Your task to perform on an android device: What's the weather going to be tomorrow? Image 0: 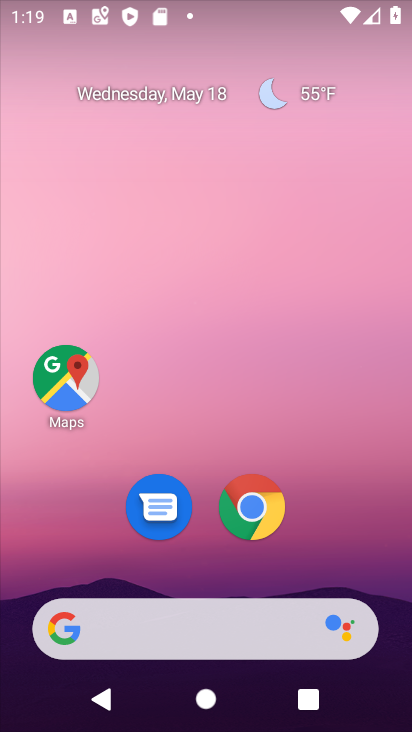
Step 0: click (321, 88)
Your task to perform on an android device: What's the weather going to be tomorrow? Image 1: 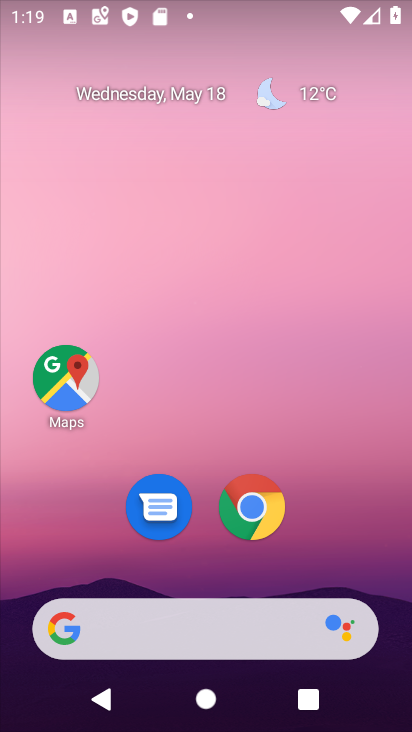
Step 1: click (300, 92)
Your task to perform on an android device: What's the weather going to be tomorrow? Image 2: 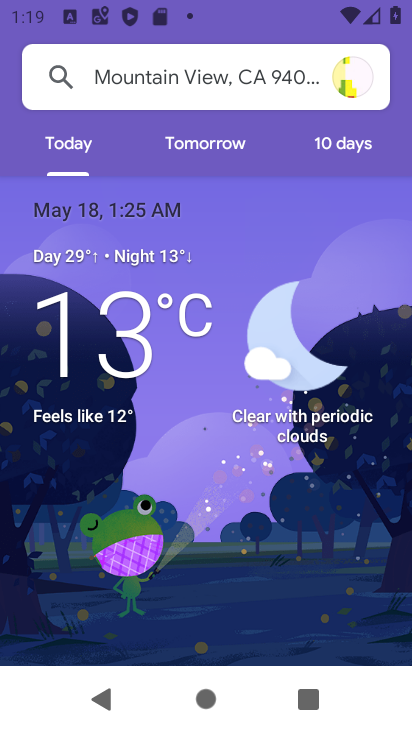
Step 2: click (208, 147)
Your task to perform on an android device: What's the weather going to be tomorrow? Image 3: 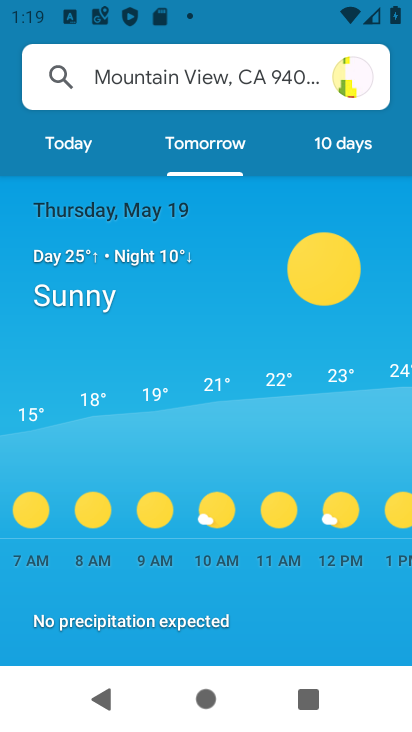
Step 3: task complete